Your task to perform on an android device: find which apps use the phone's location Image 0: 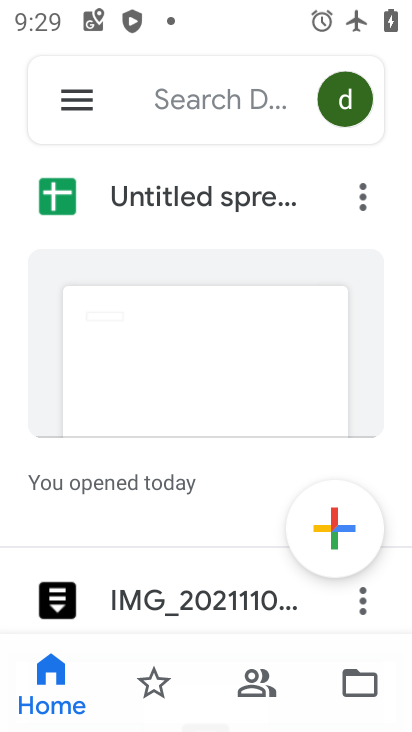
Step 0: press home button
Your task to perform on an android device: find which apps use the phone's location Image 1: 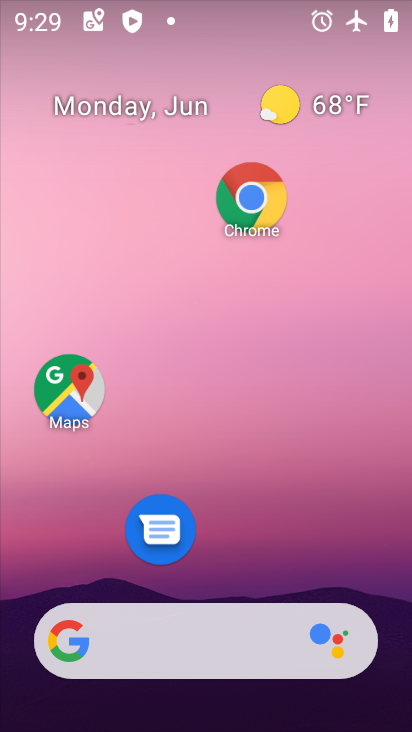
Step 1: drag from (222, 573) to (224, 187)
Your task to perform on an android device: find which apps use the phone's location Image 2: 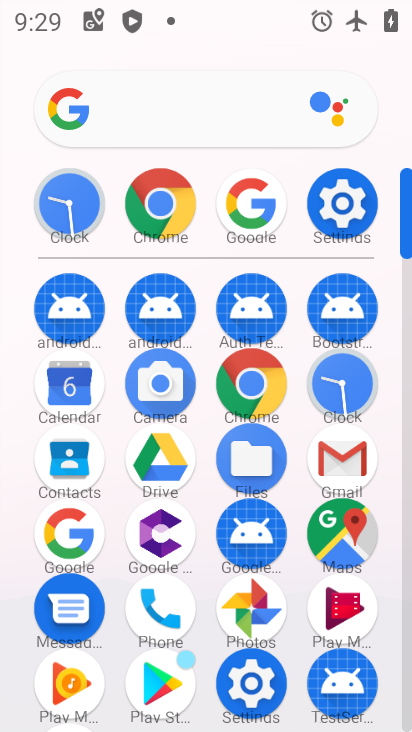
Step 2: click (323, 197)
Your task to perform on an android device: find which apps use the phone's location Image 3: 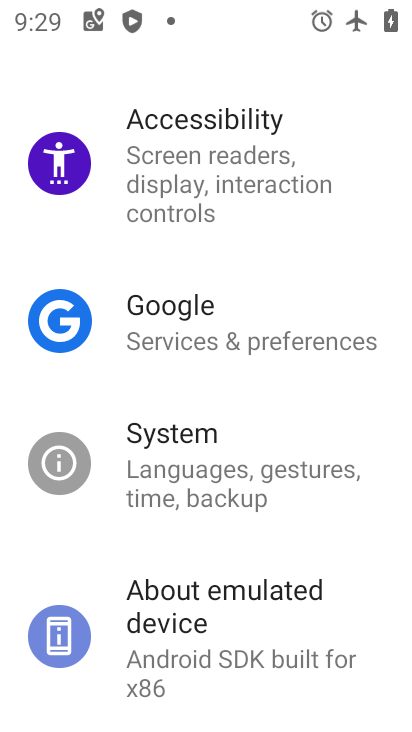
Step 3: drag from (224, 574) to (225, 200)
Your task to perform on an android device: find which apps use the phone's location Image 4: 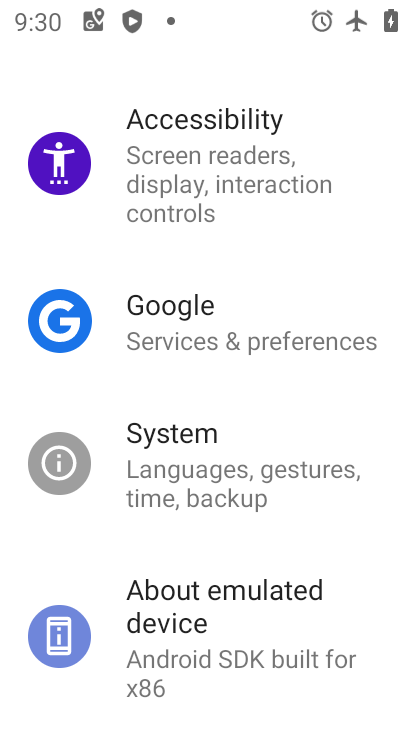
Step 4: drag from (232, 254) to (221, 555)
Your task to perform on an android device: find which apps use the phone's location Image 5: 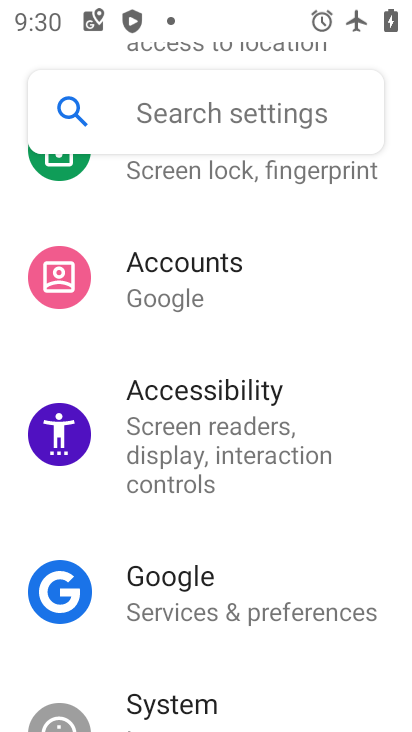
Step 5: drag from (224, 246) to (212, 498)
Your task to perform on an android device: find which apps use the phone's location Image 6: 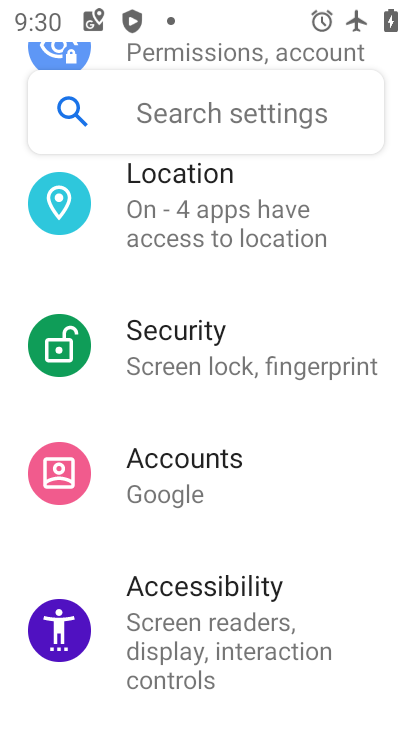
Step 6: click (229, 205)
Your task to perform on an android device: find which apps use the phone's location Image 7: 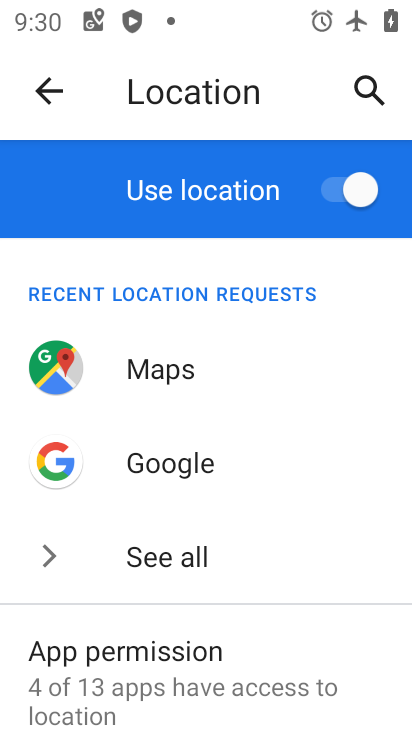
Step 7: click (122, 642)
Your task to perform on an android device: find which apps use the phone's location Image 8: 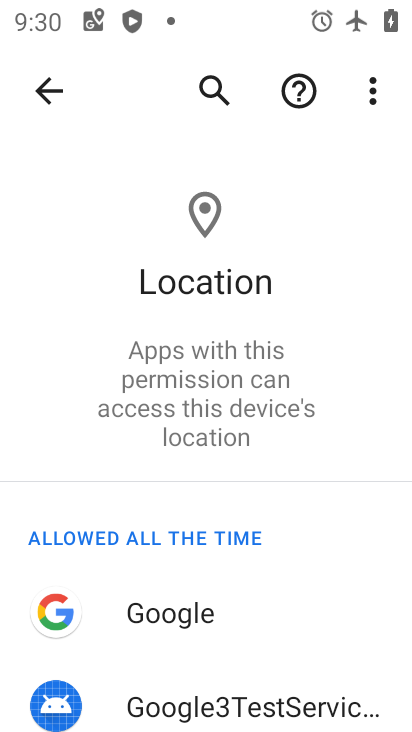
Step 8: task complete